Your task to perform on an android device: turn smart compose on in the gmail app Image 0: 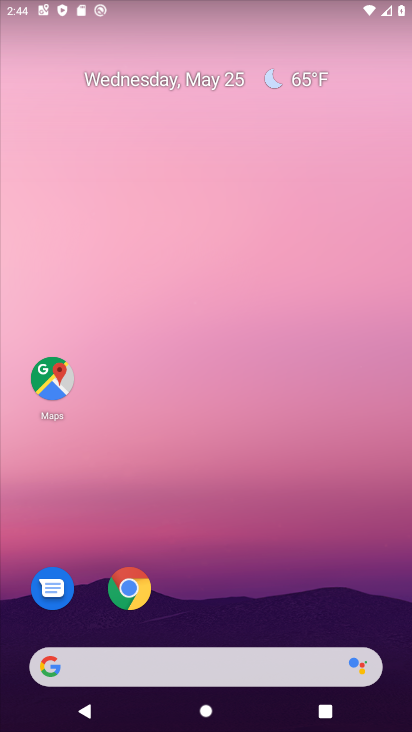
Step 0: drag from (191, 601) to (240, 206)
Your task to perform on an android device: turn smart compose on in the gmail app Image 1: 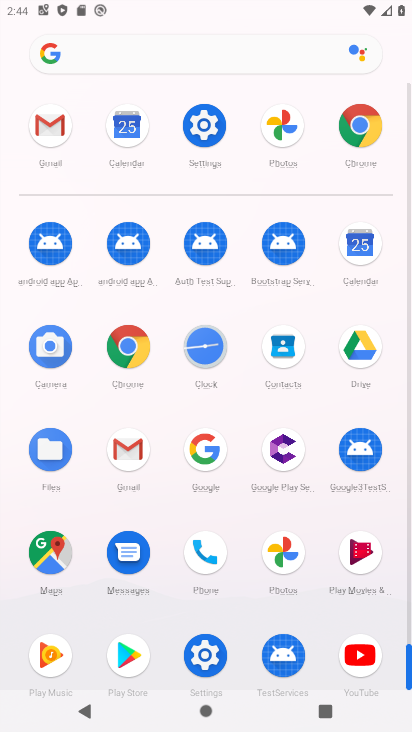
Step 1: click (47, 135)
Your task to perform on an android device: turn smart compose on in the gmail app Image 2: 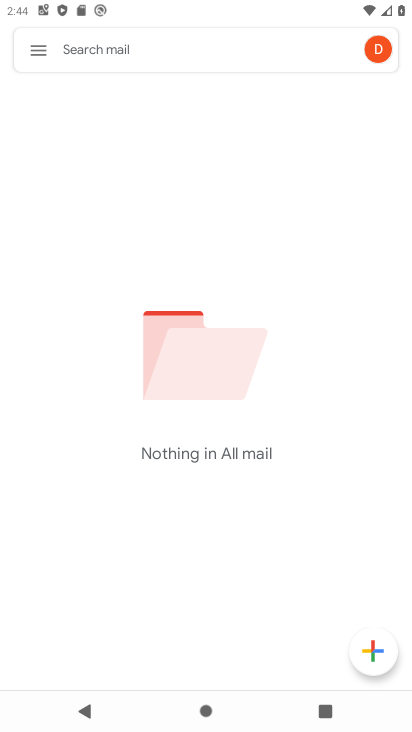
Step 2: click (44, 51)
Your task to perform on an android device: turn smart compose on in the gmail app Image 3: 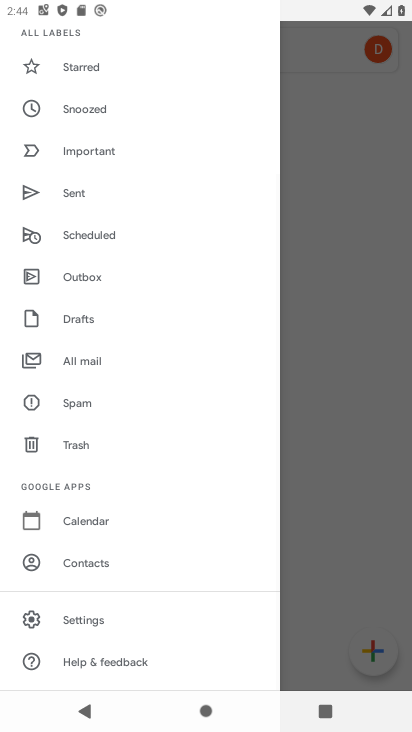
Step 3: click (93, 632)
Your task to perform on an android device: turn smart compose on in the gmail app Image 4: 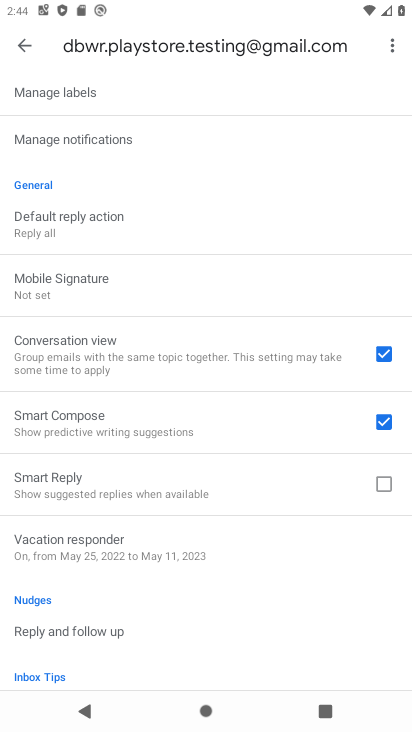
Step 4: task complete